Your task to perform on an android device: Open Google Chrome and click the shortcut for Amazon.com Image 0: 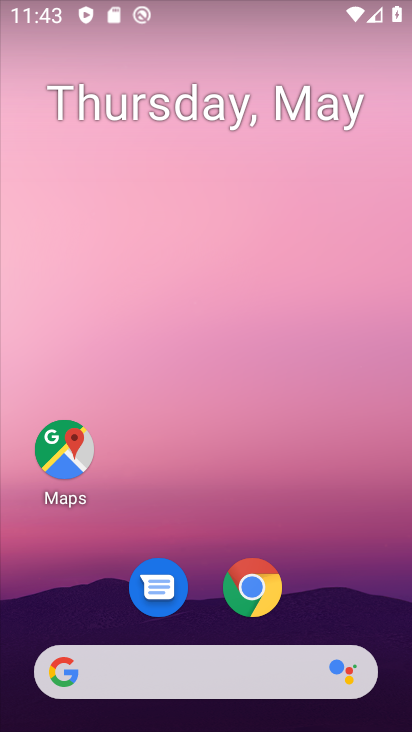
Step 0: click (266, 584)
Your task to perform on an android device: Open Google Chrome and click the shortcut for Amazon.com Image 1: 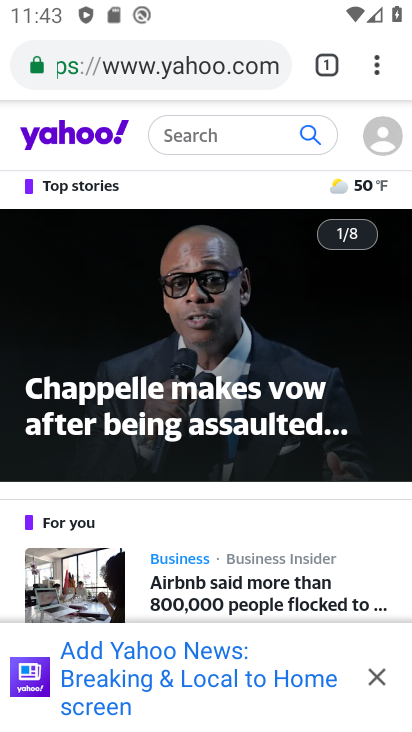
Step 1: click (377, 69)
Your task to perform on an android device: Open Google Chrome and click the shortcut for Amazon.com Image 2: 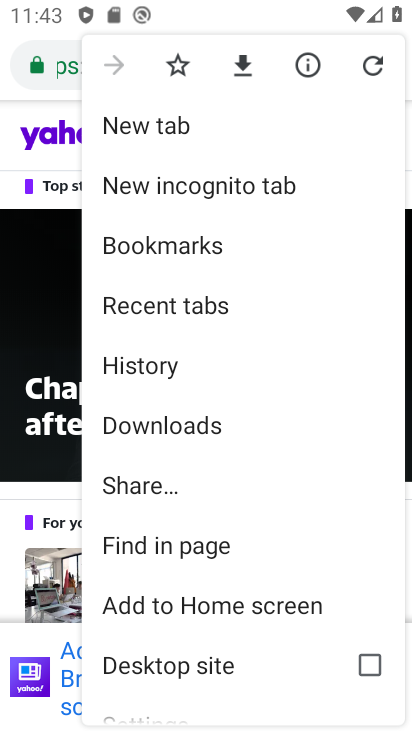
Step 2: click (60, 252)
Your task to perform on an android device: Open Google Chrome and click the shortcut for Amazon.com Image 3: 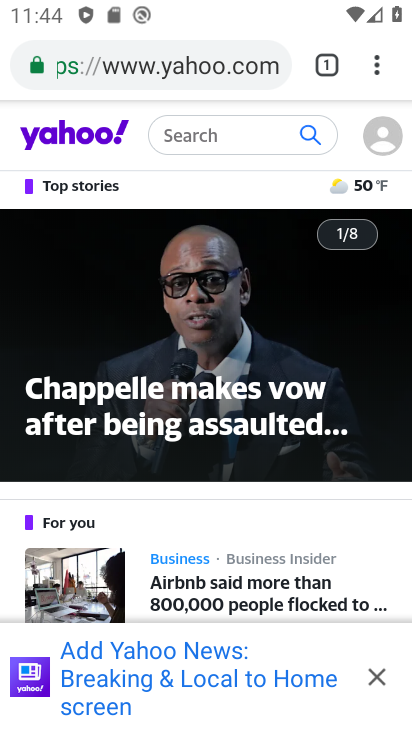
Step 3: click (318, 67)
Your task to perform on an android device: Open Google Chrome and click the shortcut for Amazon.com Image 4: 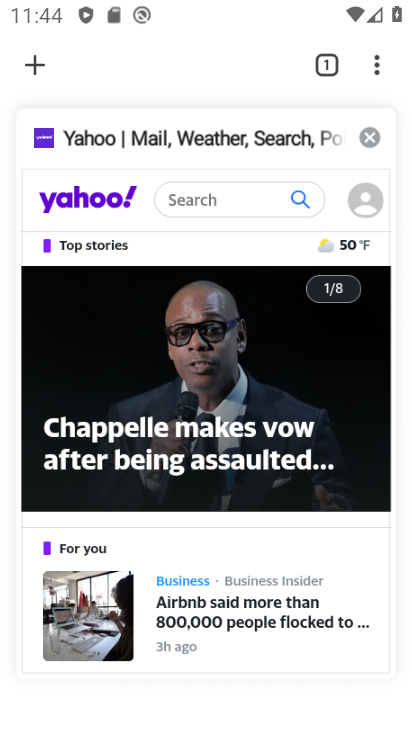
Step 4: click (32, 57)
Your task to perform on an android device: Open Google Chrome and click the shortcut for Amazon.com Image 5: 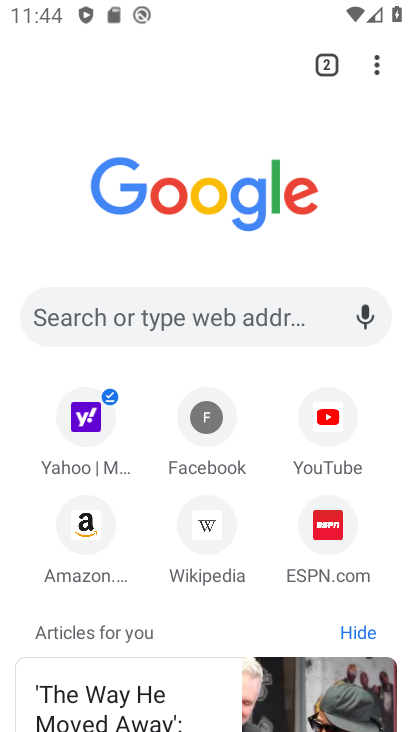
Step 5: click (76, 541)
Your task to perform on an android device: Open Google Chrome and click the shortcut for Amazon.com Image 6: 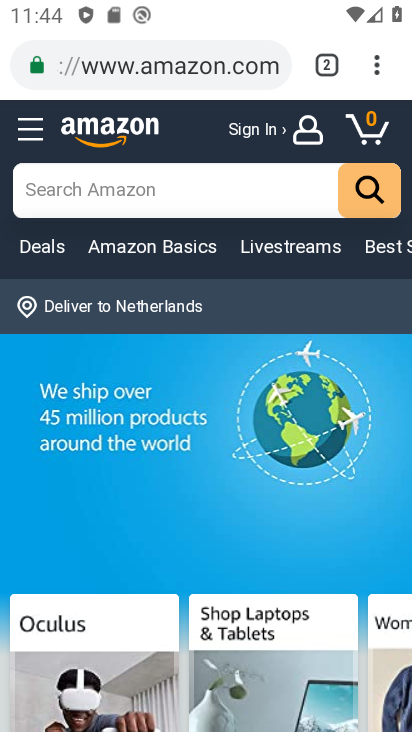
Step 6: task complete